Your task to perform on an android device: change keyboard looks Image 0: 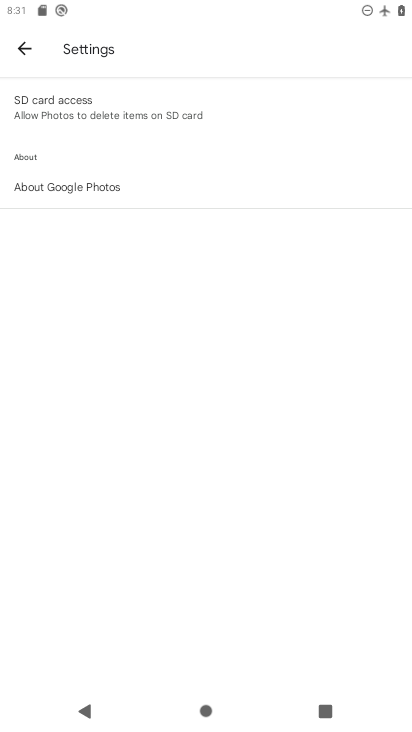
Step 0: press home button
Your task to perform on an android device: change keyboard looks Image 1: 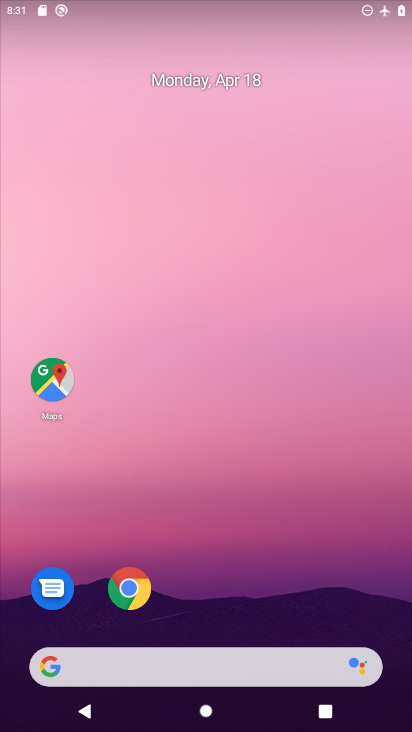
Step 1: drag from (236, 496) to (238, 43)
Your task to perform on an android device: change keyboard looks Image 2: 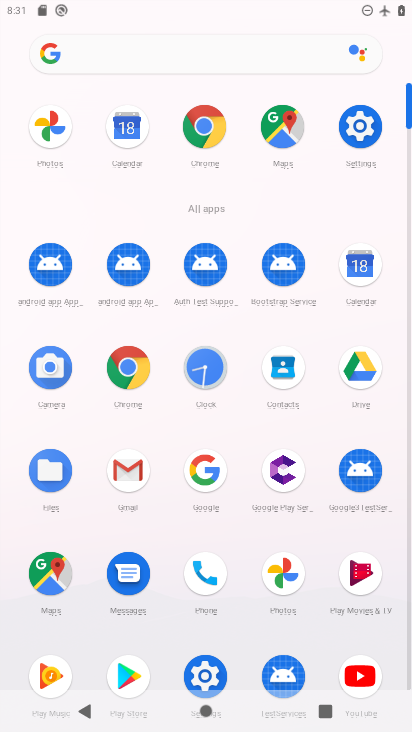
Step 2: click (361, 121)
Your task to perform on an android device: change keyboard looks Image 3: 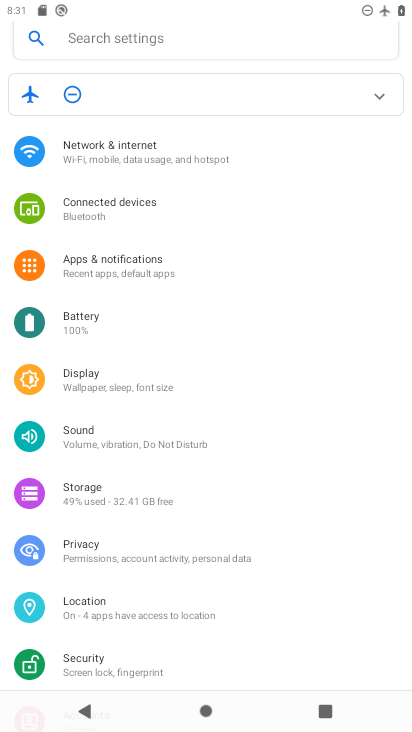
Step 3: drag from (118, 599) to (152, 207)
Your task to perform on an android device: change keyboard looks Image 4: 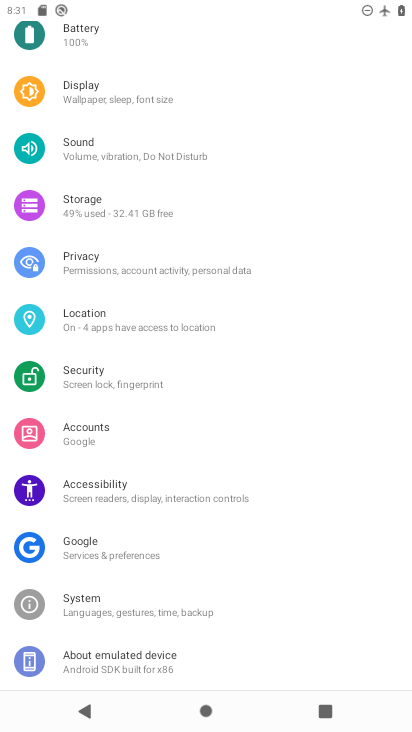
Step 4: click (91, 608)
Your task to perform on an android device: change keyboard looks Image 5: 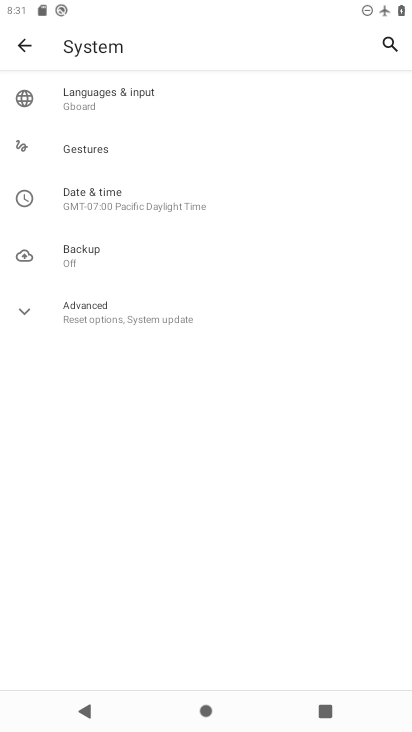
Step 5: click (72, 145)
Your task to perform on an android device: change keyboard looks Image 6: 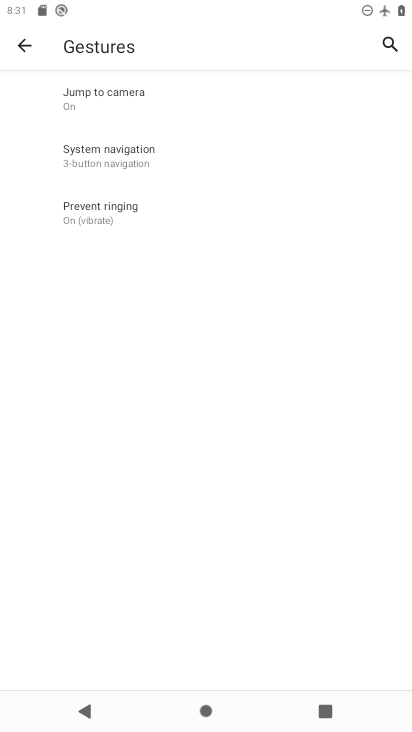
Step 6: click (24, 45)
Your task to perform on an android device: change keyboard looks Image 7: 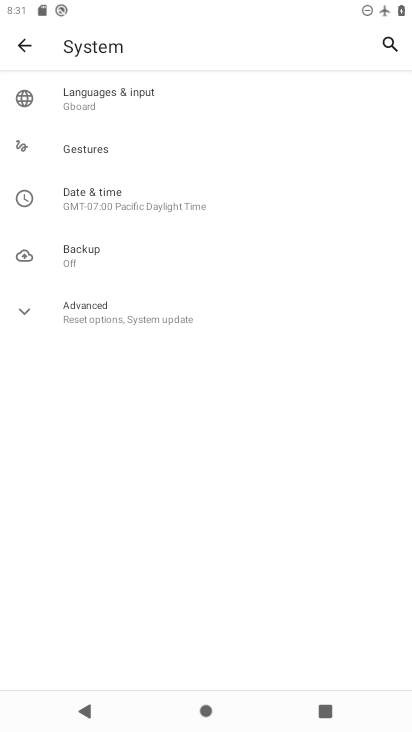
Step 7: click (211, 106)
Your task to perform on an android device: change keyboard looks Image 8: 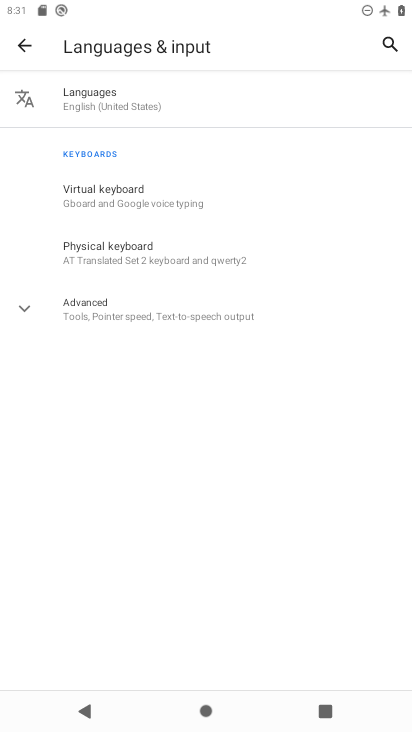
Step 8: click (118, 199)
Your task to perform on an android device: change keyboard looks Image 9: 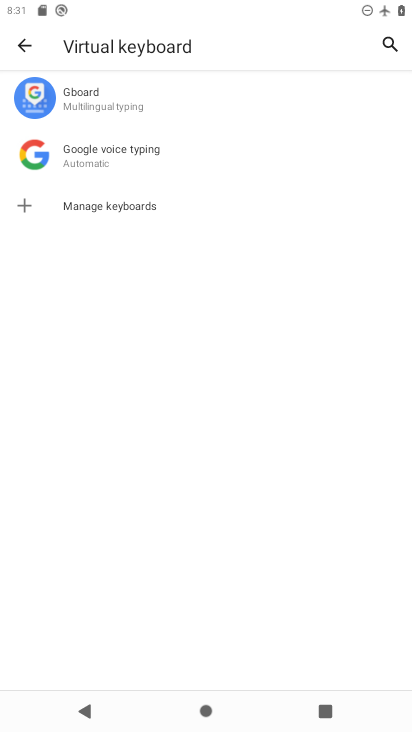
Step 9: click (166, 100)
Your task to perform on an android device: change keyboard looks Image 10: 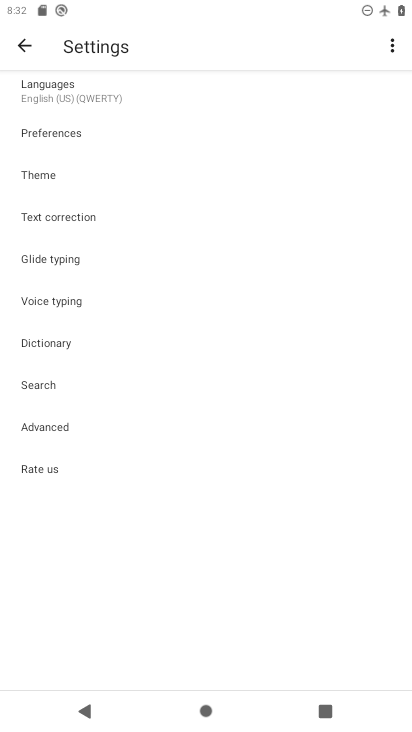
Step 10: click (46, 165)
Your task to perform on an android device: change keyboard looks Image 11: 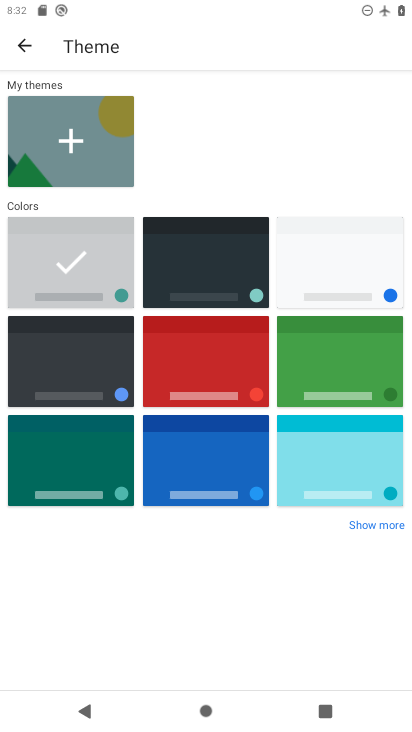
Step 11: click (359, 525)
Your task to perform on an android device: change keyboard looks Image 12: 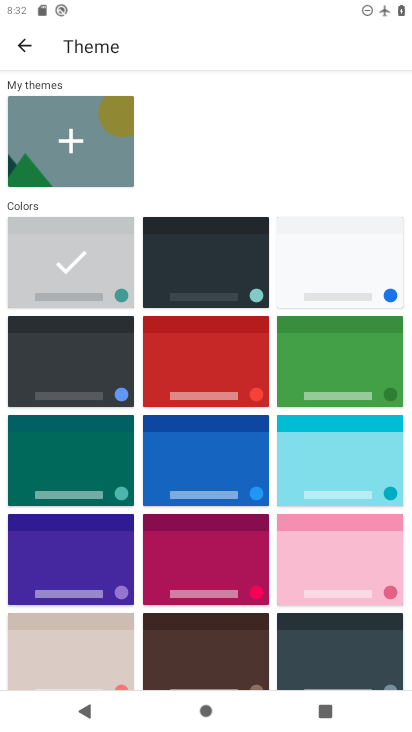
Step 12: drag from (263, 603) to (304, 228)
Your task to perform on an android device: change keyboard looks Image 13: 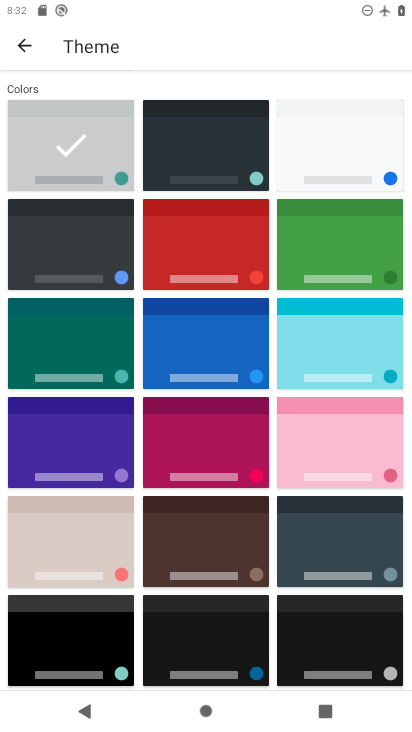
Step 13: click (238, 452)
Your task to perform on an android device: change keyboard looks Image 14: 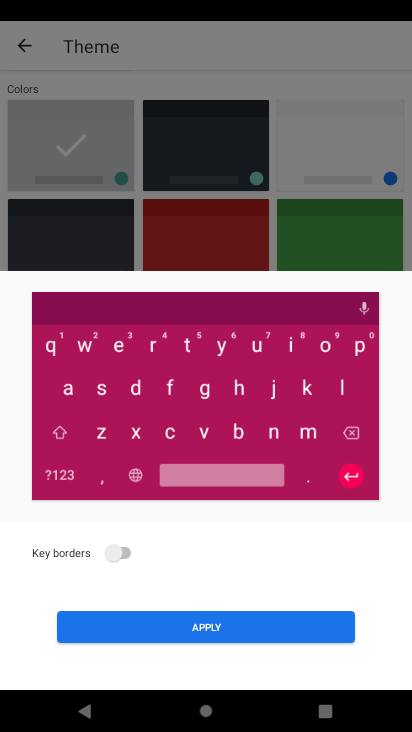
Step 14: click (120, 555)
Your task to perform on an android device: change keyboard looks Image 15: 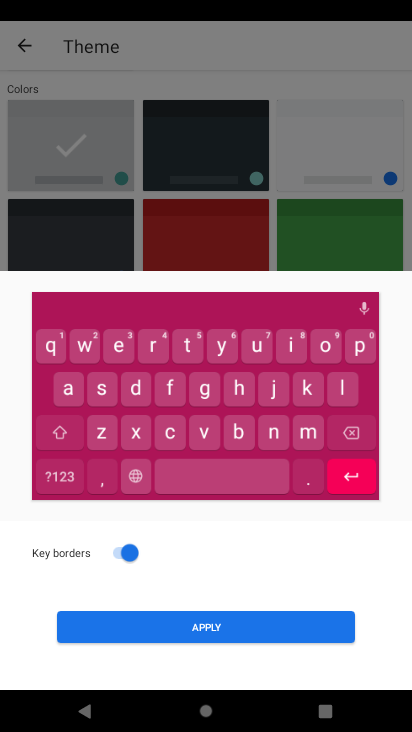
Step 15: click (139, 627)
Your task to perform on an android device: change keyboard looks Image 16: 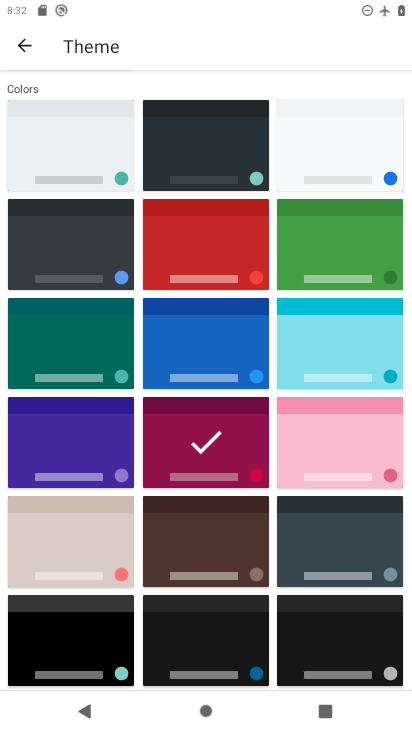
Step 16: task complete